Your task to perform on an android device: Open ESPN.com Image 0: 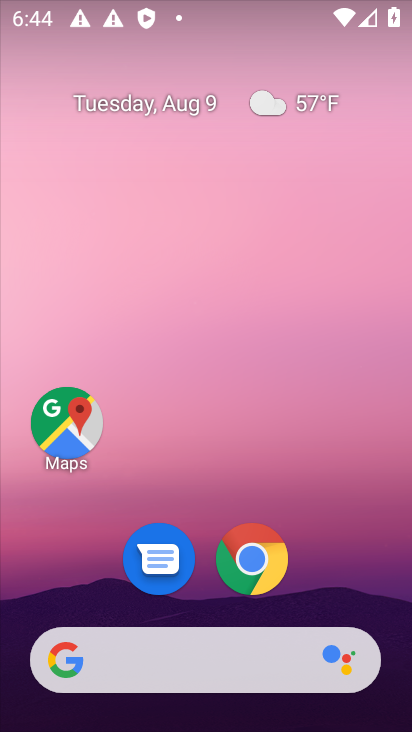
Step 0: click (263, 573)
Your task to perform on an android device: Open ESPN.com Image 1: 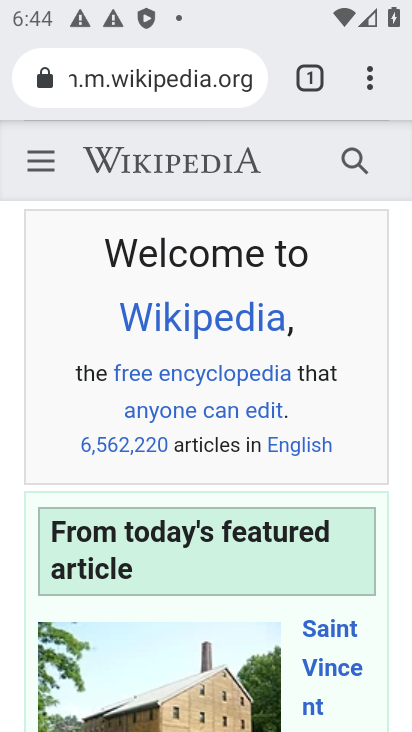
Step 1: click (149, 82)
Your task to perform on an android device: Open ESPN.com Image 2: 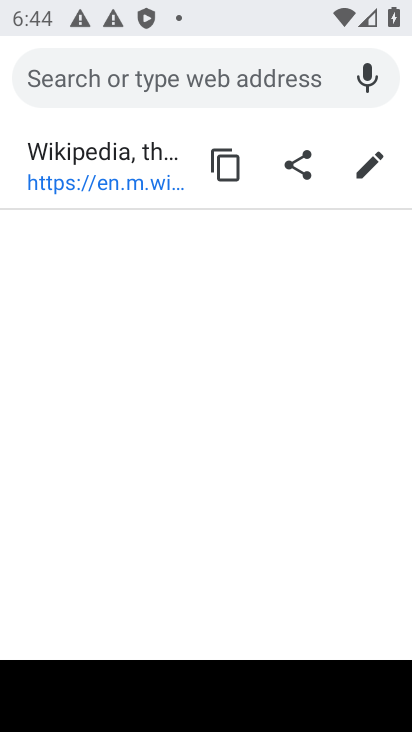
Step 2: type "www.espn.com"
Your task to perform on an android device: Open ESPN.com Image 3: 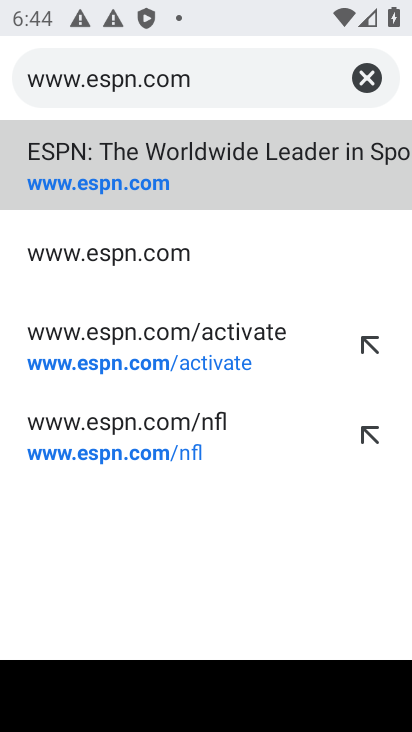
Step 3: click (102, 185)
Your task to perform on an android device: Open ESPN.com Image 4: 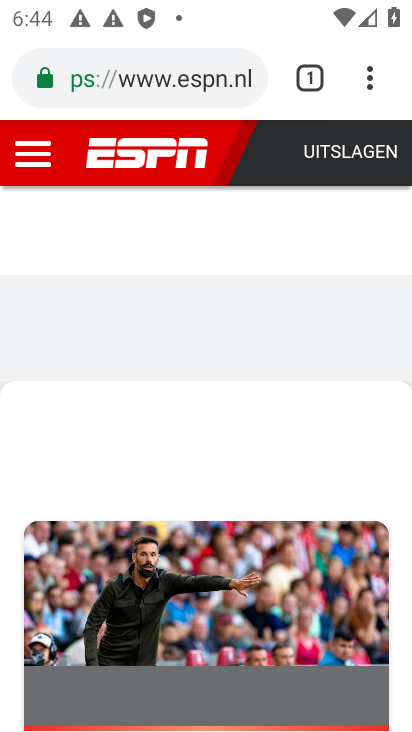
Step 4: task complete